Your task to perform on an android device: change timer sound Image 0: 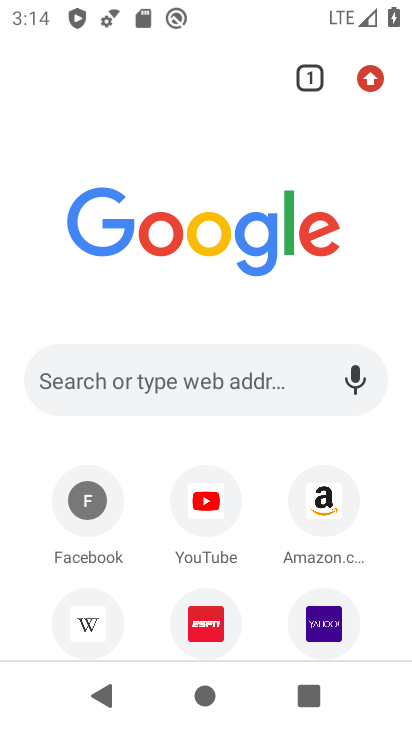
Step 0: press home button
Your task to perform on an android device: change timer sound Image 1: 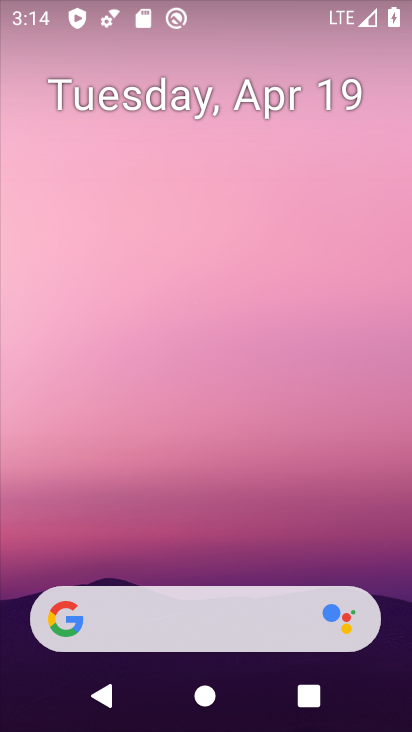
Step 1: drag from (234, 476) to (220, 53)
Your task to perform on an android device: change timer sound Image 2: 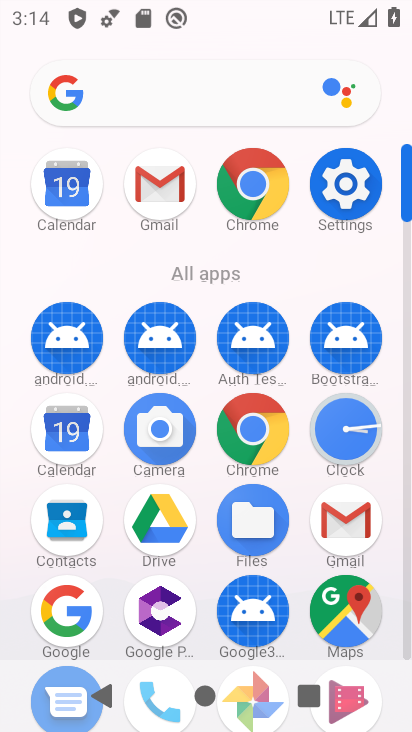
Step 2: click (349, 427)
Your task to perform on an android device: change timer sound Image 3: 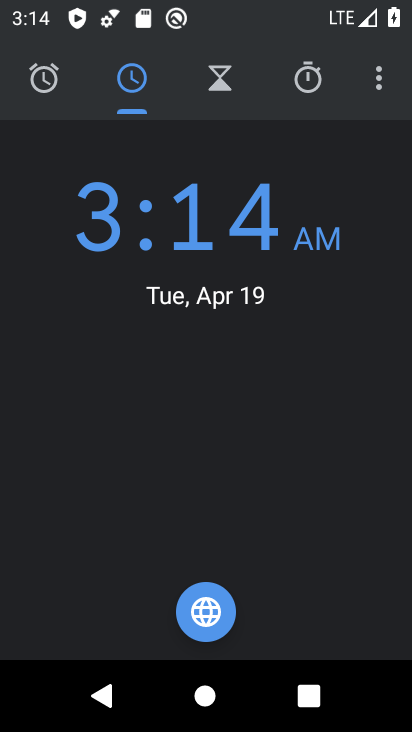
Step 3: click (383, 76)
Your task to perform on an android device: change timer sound Image 4: 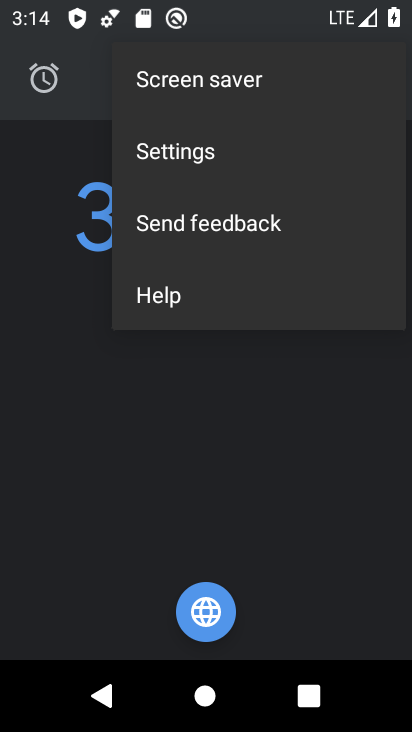
Step 4: click (179, 154)
Your task to perform on an android device: change timer sound Image 5: 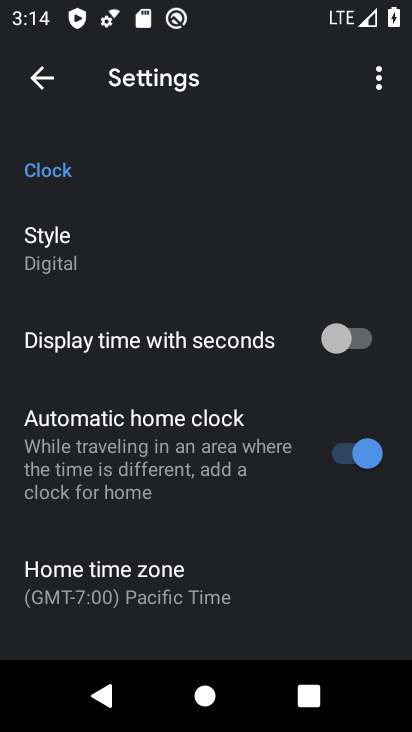
Step 5: drag from (165, 516) to (191, 380)
Your task to perform on an android device: change timer sound Image 6: 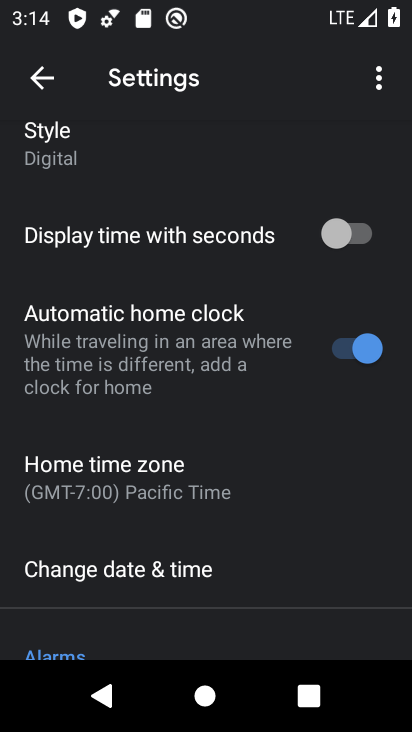
Step 6: drag from (186, 437) to (214, 323)
Your task to perform on an android device: change timer sound Image 7: 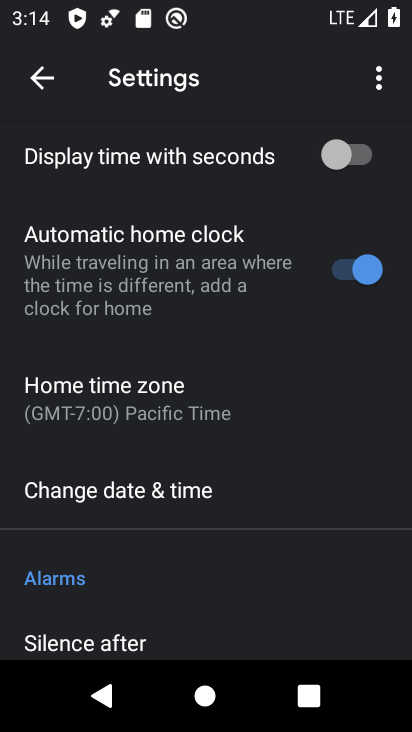
Step 7: drag from (165, 455) to (225, 362)
Your task to perform on an android device: change timer sound Image 8: 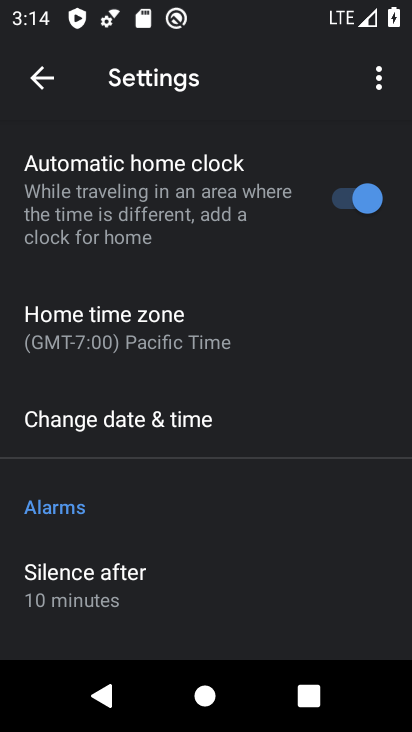
Step 8: drag from (156, 499) to (236, 375)
Your task to perform on an android device: change timer sound Image 9: 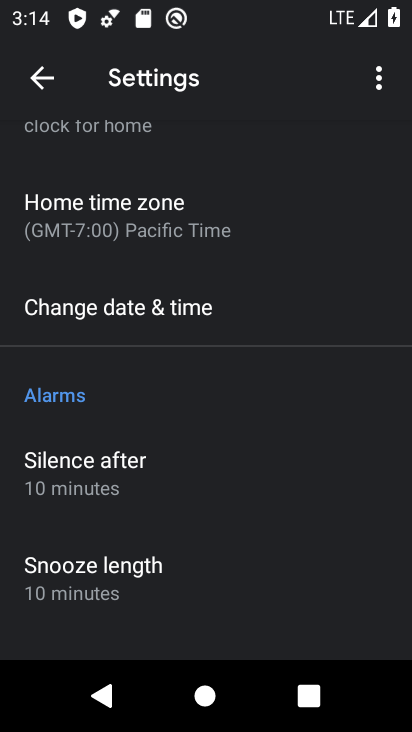
Step 9: drag from (157, 486) to (241, 369)
Your task to perform on an android device: change timer sound Image 10: 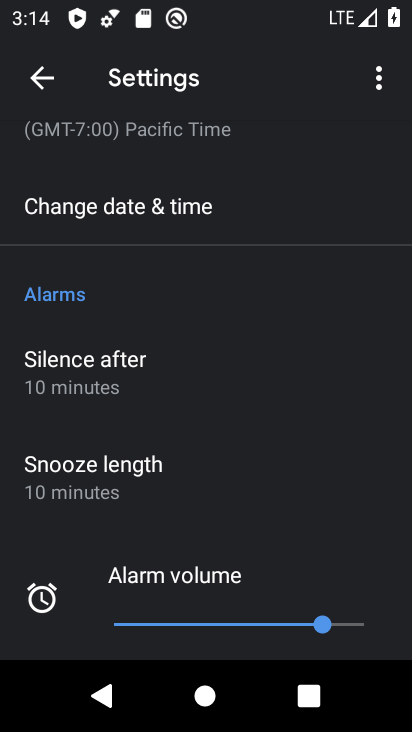
Step 10: drag from (110, 436) to (172, 323)
Your task to perform on an android device: change timer sound Image 11: 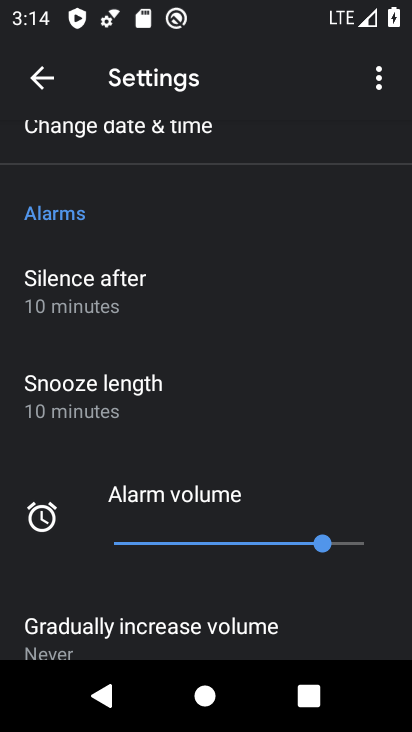
Step 11: drag from (60, 456) to (122, 358)
Your task to perform on an android device: change timer sound Image 12: 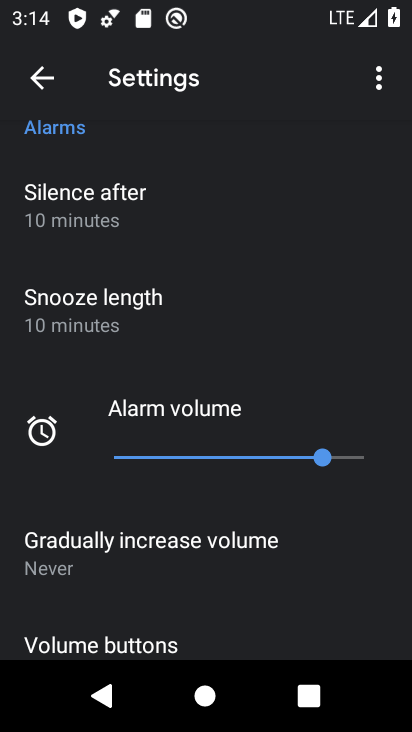
Step 12: drag from (42, 493) to (104, 368)
Your task to perform on an android device: change timer sound Image 13: 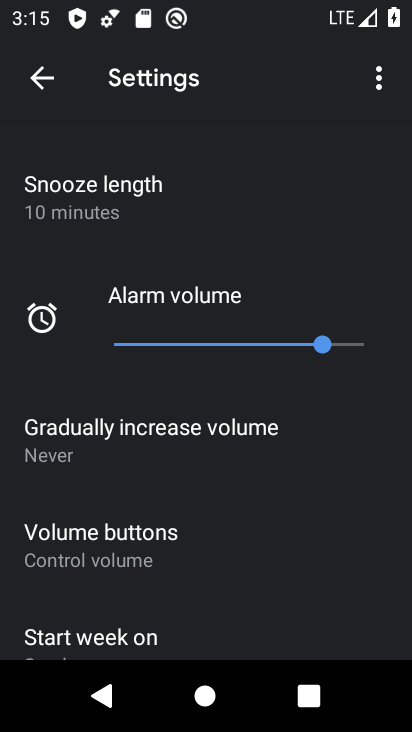
Step 13: drag from (27, 498) to (124, 368)
Your task to perform on an android device: change timer sound Image 14: 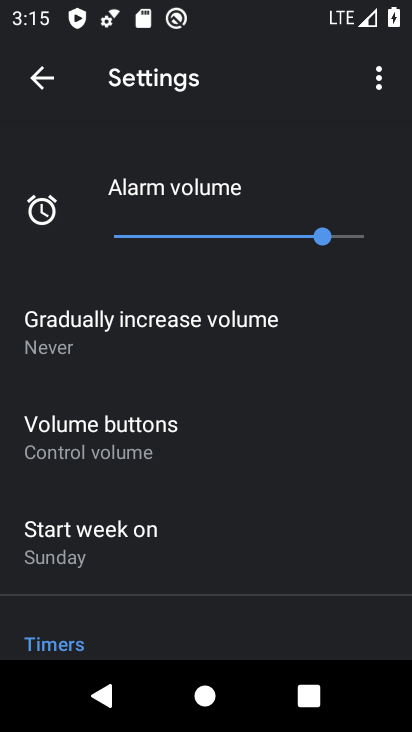
Step 14: drag from (32, 507) to (160, 373)
Your task to perform on an android device: change timer sound Image 15: 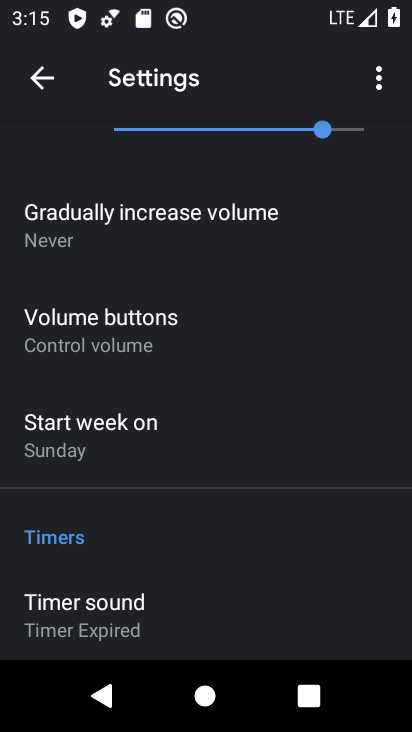
Step 15: drag from (48, 518) to (160, 382)
Your task to perform on an android device: change timer sound Image 16: 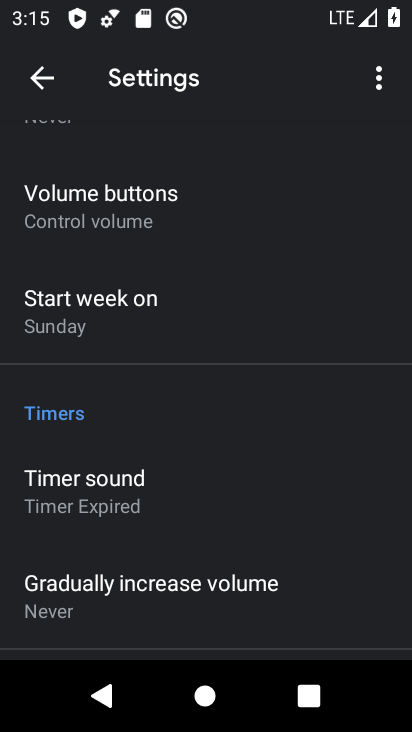
Step 16: click (73, 486)
Your task to perform on an android device: change timer sound Image 17: 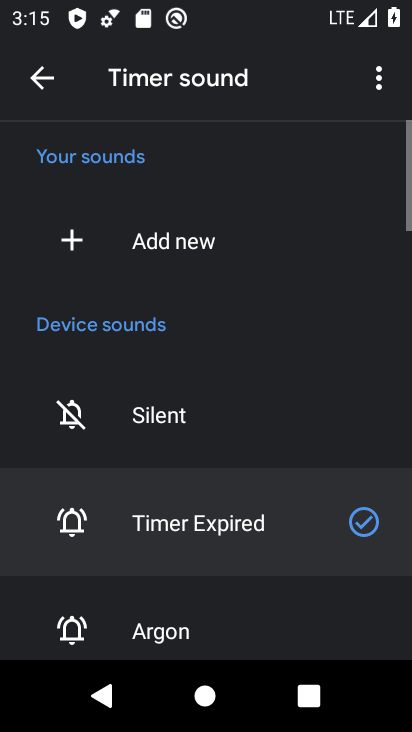
Step 17: drag from (146, 560) to (234, 432)
Your task to perform on an android device: change timer sound Image 18: 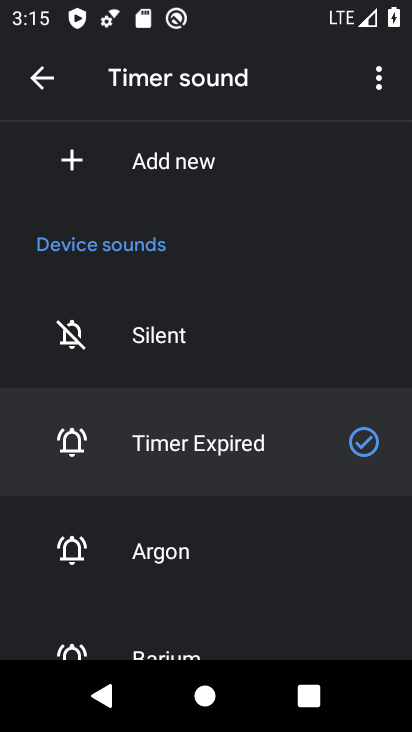
Step 18: drag from (189, 565) to (259, 459)
Your task to perform on an android device: change timer sound Image 19: 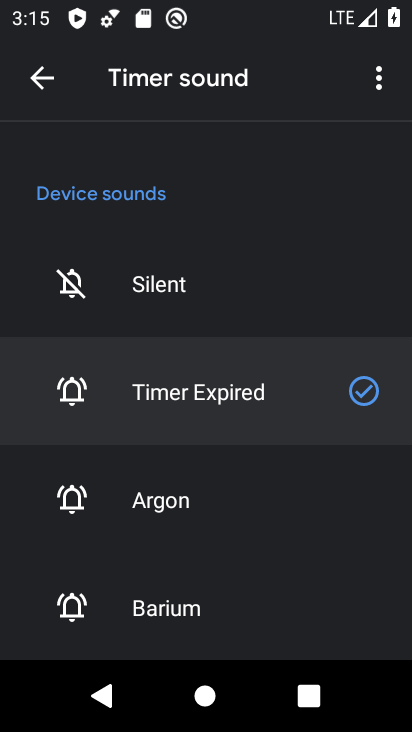
Step 19: drag from (182, 572) to (230, 454)
Your task to perform on an android device: change timer sound Image 20: 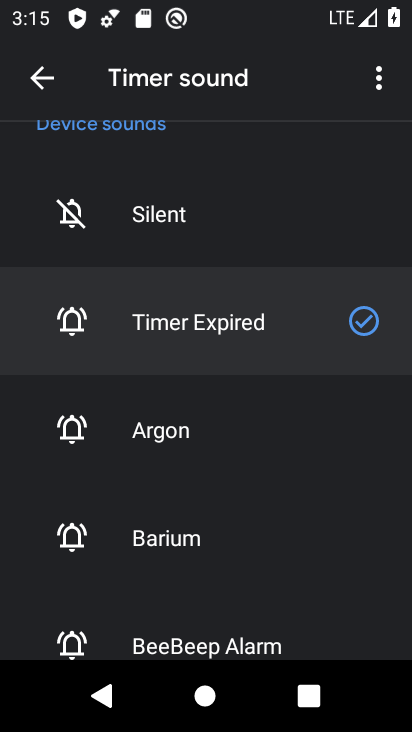
Step 20: drag from (168, 568) to (250, 441)
Your task to perform on an android device: change timer sound Image 21: 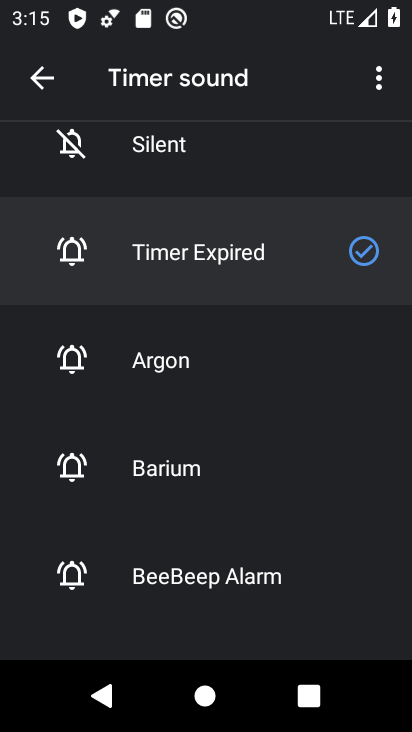
Step 21: click (173, 570)
Your task to perform on an android device: change timer sound Image 22: 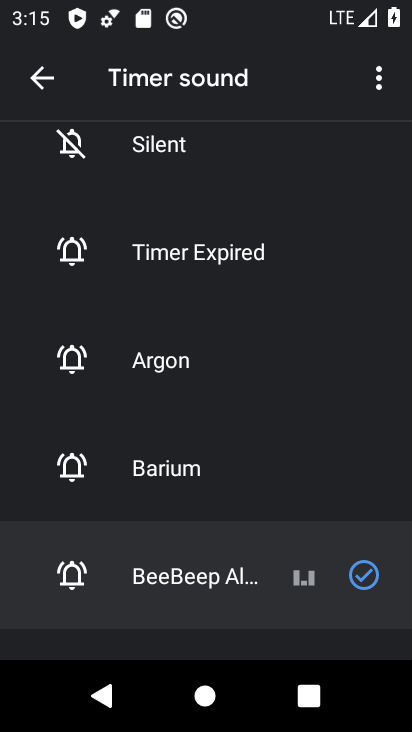
Step 22: task complete